Your task to perform on an android device: show emergency info Image 0: 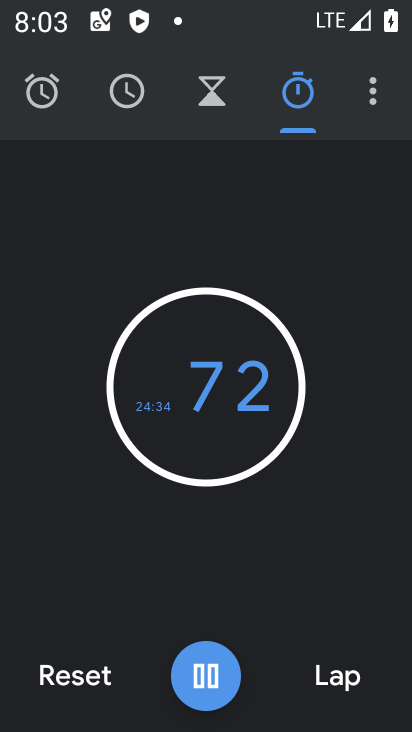
Step 0: press home button
Your task to perform on an android device: show emergency info Image 1: 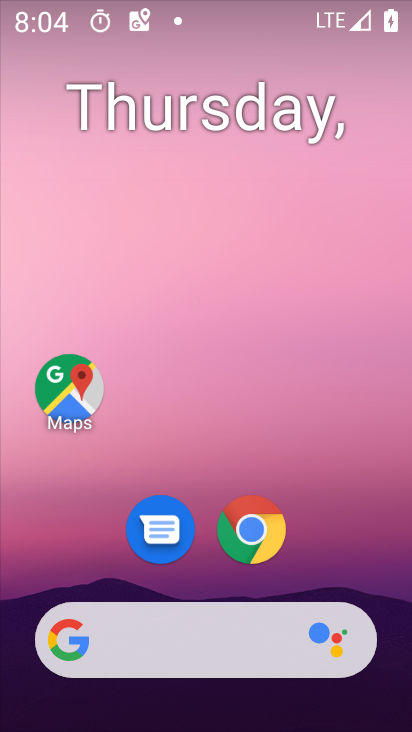
Step 1: drag from (356, 552) to (369, 169)
Your task to perform on an android device: show emergency info Image 2: 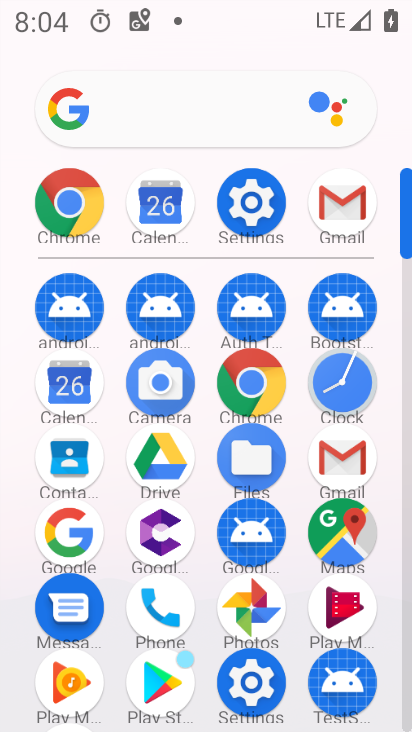
Step 2: click (260, 219)
Your task to perform on an android device: show emergency info Image 3: 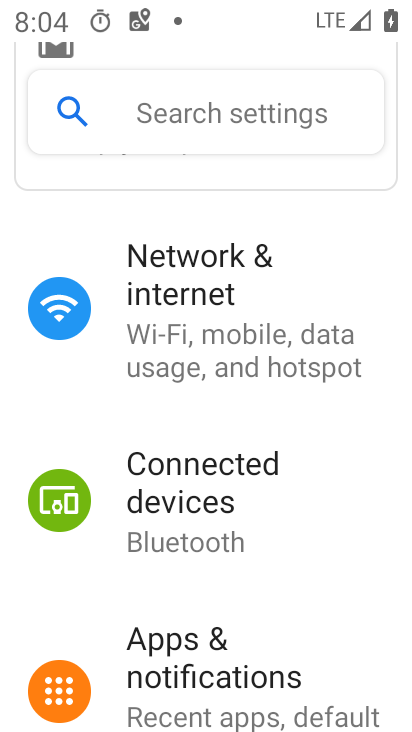
Step 3: drag from (339, 517) to (344, 353)
Your task to perform on an android device: show emergency info Image 4: 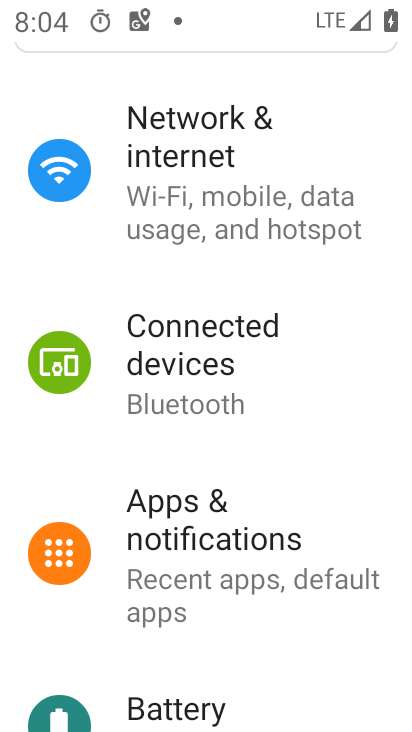
Step 4: drag from (345, 491) to (358, 321)
Your task to perform on an android device: show emergency info Image 5: 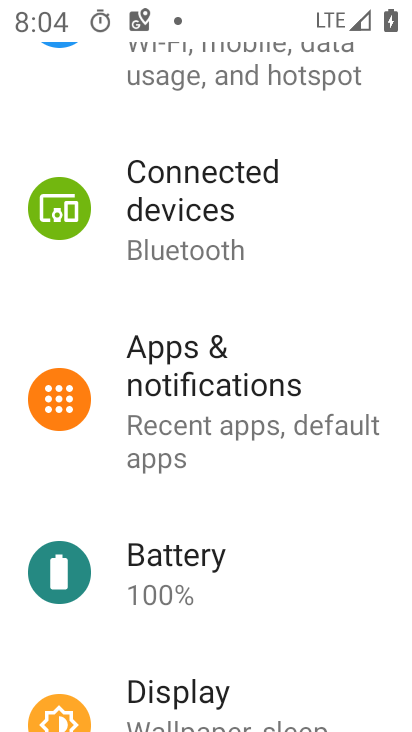
Step 5: drag from (346, 566) to (348, 390)
Your task to perform on an android device: show emergency info Image 6: 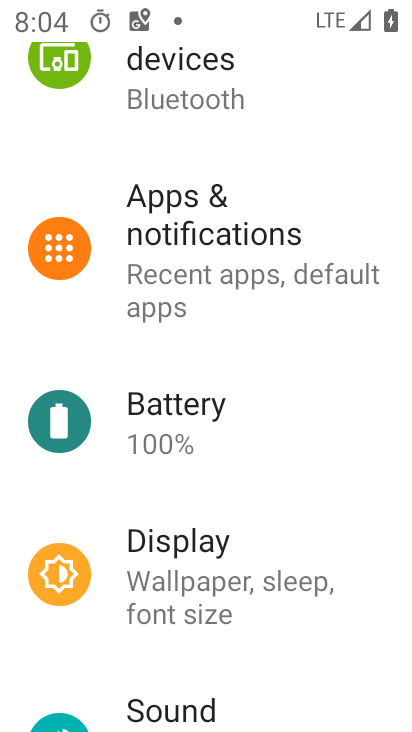
Step 6: drag from (339, 541) to (338, 407)
Your task to perform on an android device: show emergency info Image 7: 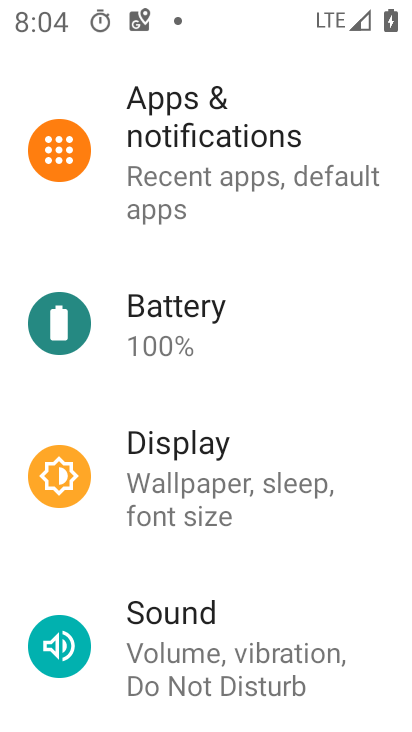
Step 7: drag from (345, 570) to (347, 456)
Your task to perform on an android device: show emergency info Image 8: 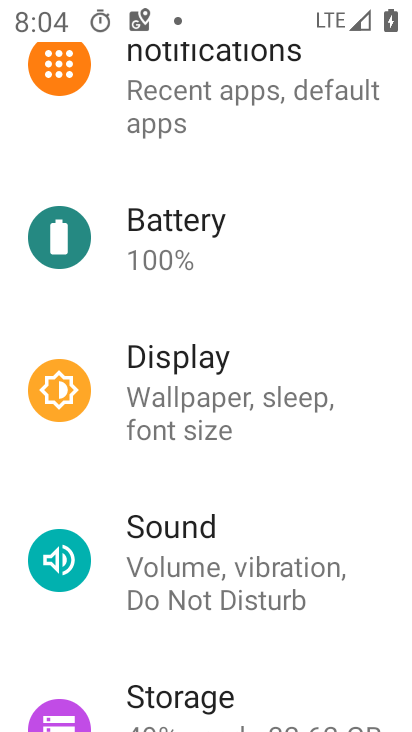
Step 8: drag from (359, 596) to (368, 489)
Your task to perform on an android device: show emergency info Image 9: 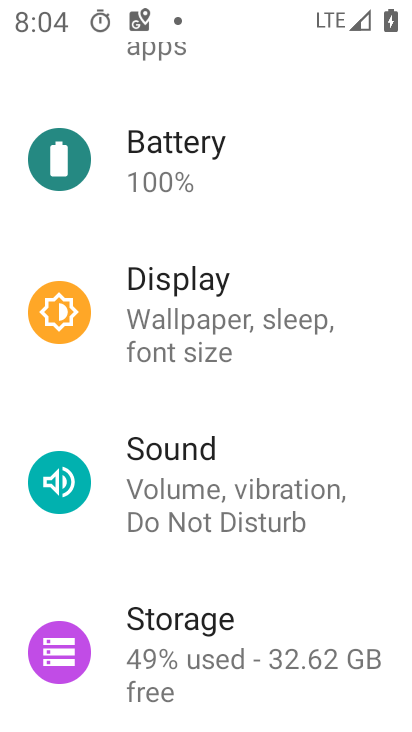
Step 9: drag from (367, 583) to (375, 481)
Your task to perform on an android device: show emergency info Image 10: 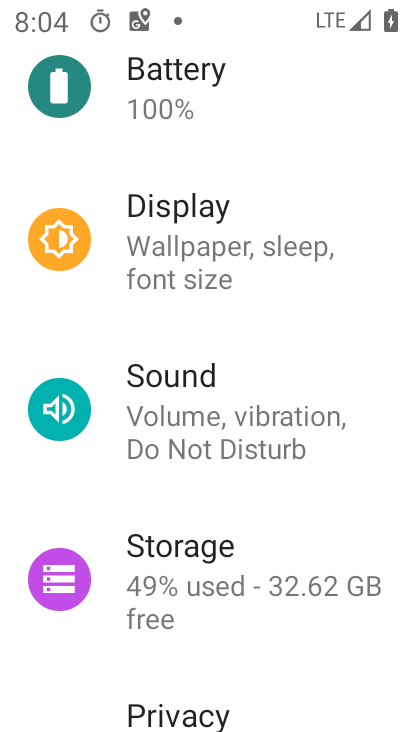
Step 10: drag from (358, 637) to (359, 499)
Your task to perform on an android device: show emergency info Image 11: 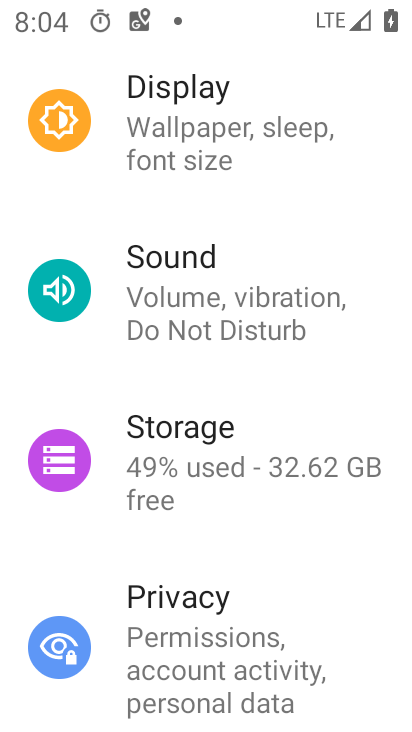
Step 11: drag from (359, 623) to (365, 526)
Your task to perform on an android device: show emergency info Image 12: 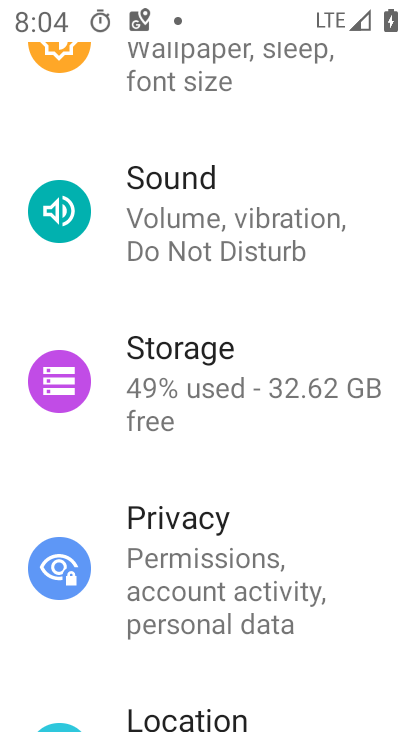
Step 12: drag from (349, 655) to (360, 549)
Your task to perform on an android device: show emergency info Image 13: 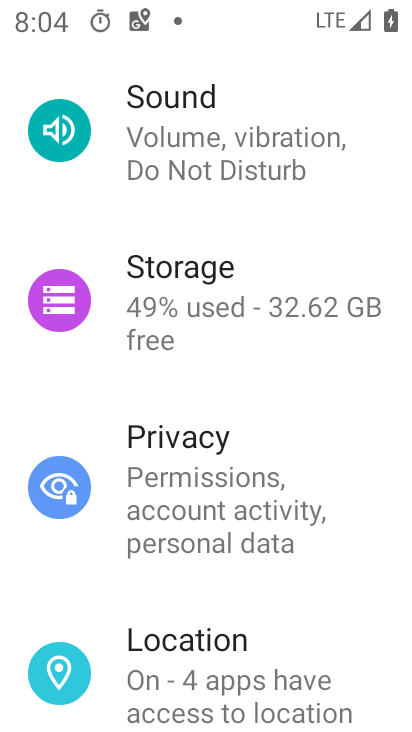
Step 13: drag from (353, 675) to (353, 555)
Your task to perform on an android device: show emergency info Image 14: 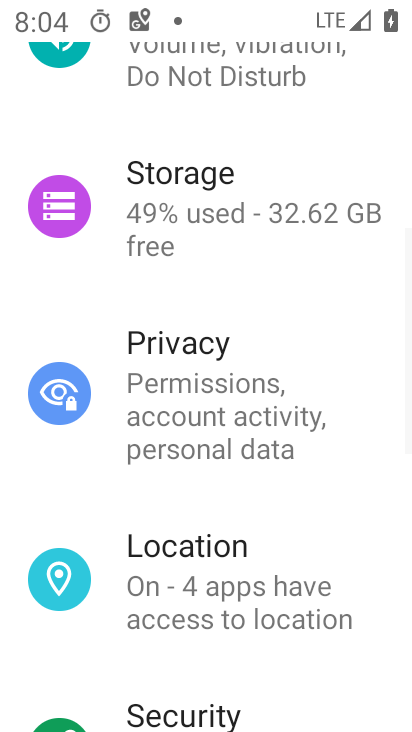
Step 14: drag from (371, 672) to (373, 579)
Your task to perform on an android device: show emergency info Image 15: 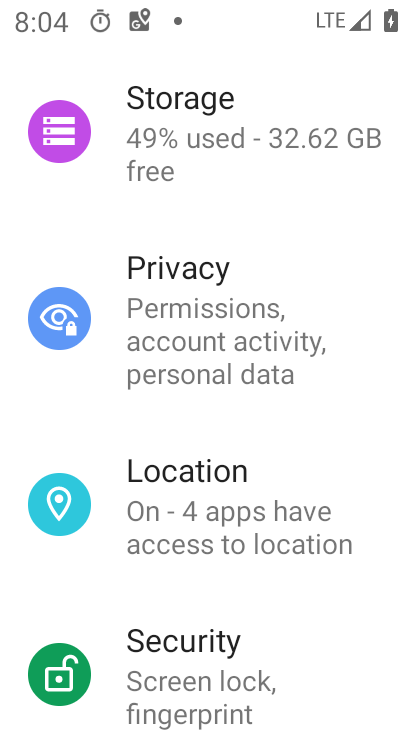
Step 15: drag from (361, 666) to (361, 580)
Your task to perform on an android device: show emergency info Image 16: 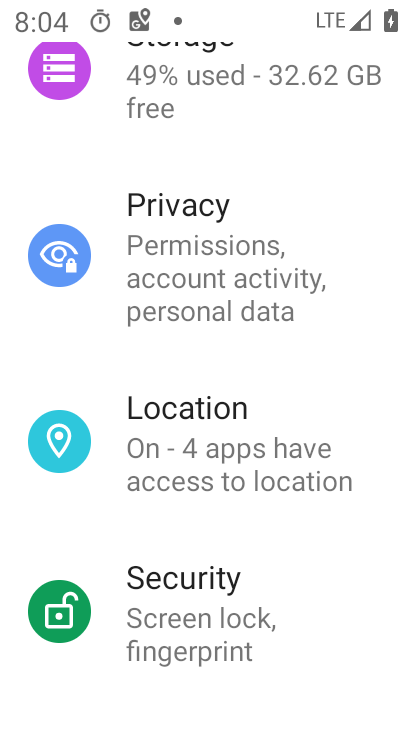
Step 16: drag from (366, 688) to (365, 600)
Your task to perform on an android device: show emergency info Image 17: 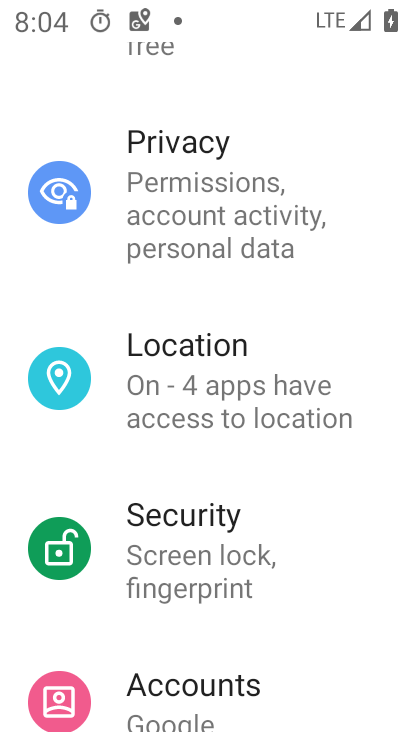
Step 17: drag from (369, 537) to (382, 457)
Your task to perform on an android device: show emergency info Image 18: 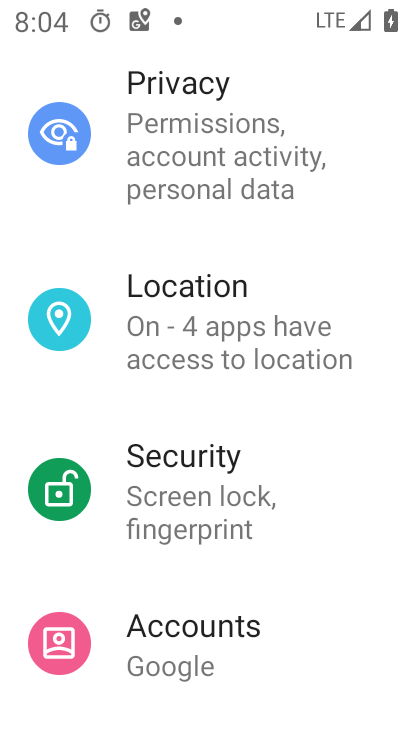
Step 18: drag from (385, 570) to (394, 444)
Your task to perform on an android device: show emergency info Image 19: 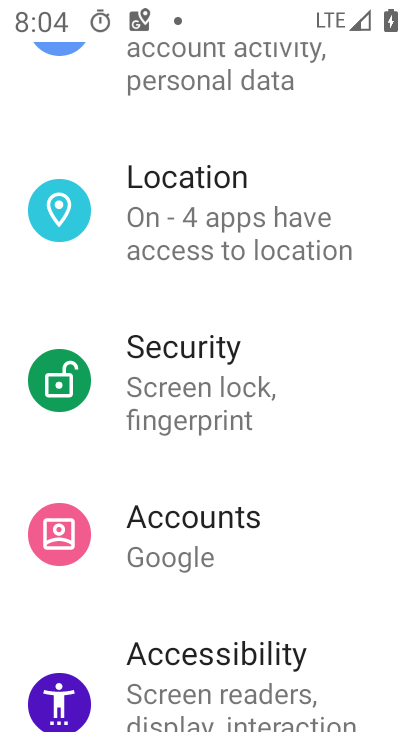
Step 19: drag from (370, 600) to (364, 498)
Your task to perform on an android device: show emergency info Image 20: 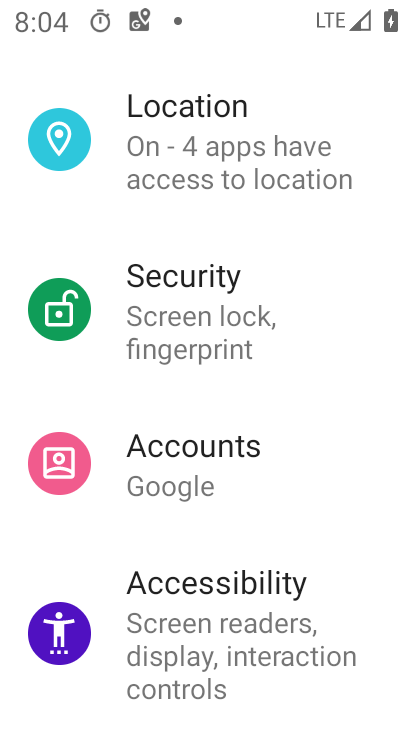
Step 20: drag from (362, 599) to (370, 497)
Your task to perform on an android device: show emergency info Image 21: 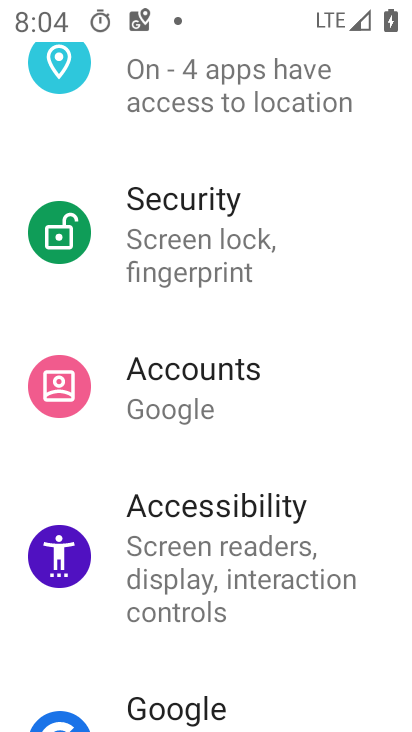
Step 21: drag from (368, 650) to (365, 515)
Your task to perform on an android device: show emergency info Image 22: 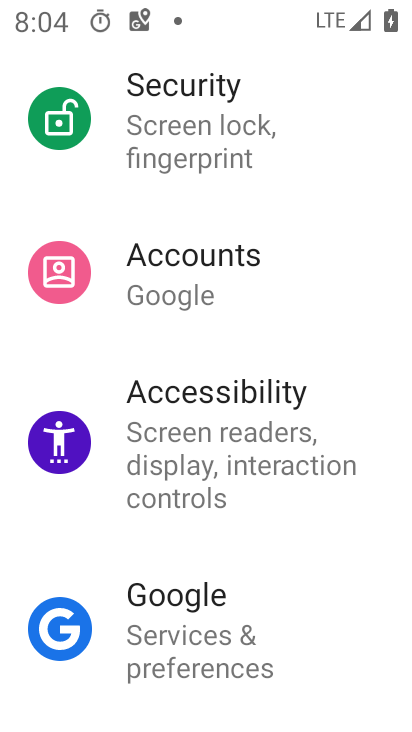
Step 22: drag from (365, 627) to (364, 511)
Your task to perform on an android device: show emergency info Image 23: 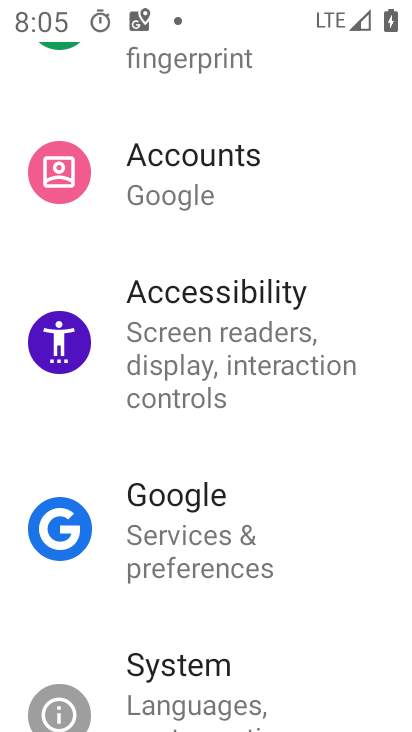
Step 23: drag from (358, 616) to (360, 523)
Your task to perform on an android device: show emergency info Image 24: 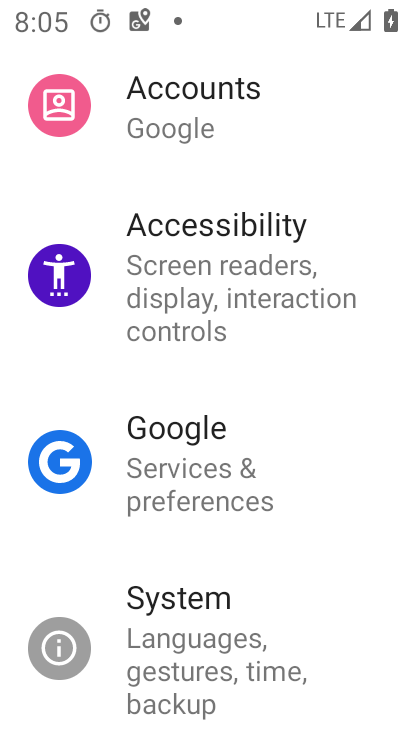
Step 24: drag from (353, 647) to (351, 540)
Your task to perform on an android device: show emergency info Image 25: 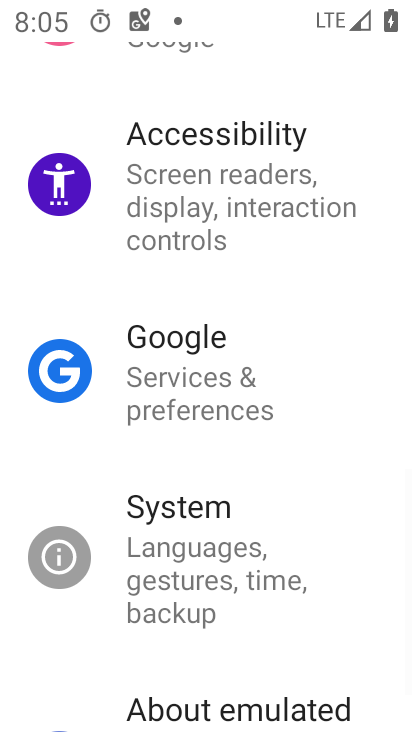
Step 25: drag from (349, 637) to (358, 424)
Your task to perform on an android device: show emergency info Image 26: 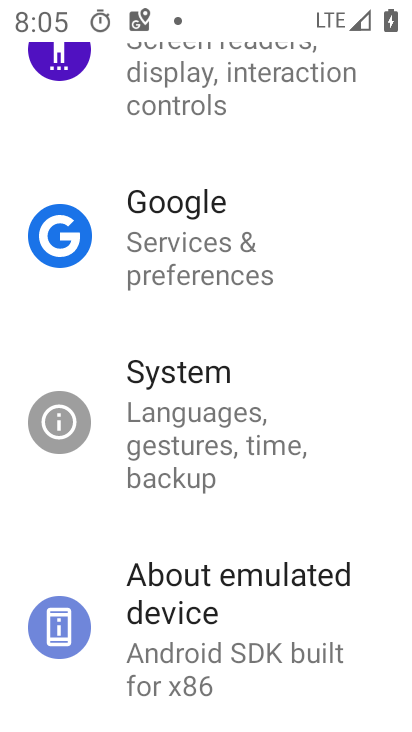
Step 26: click (290, 607)
Your task to perform on an android device: show emergency info Image 27: 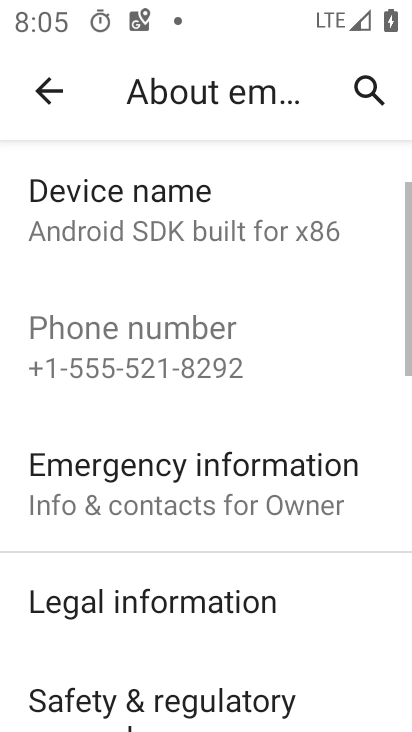
Step 27: click (229, 485)
Your task to perform on an android device: show emergency info Image 28: 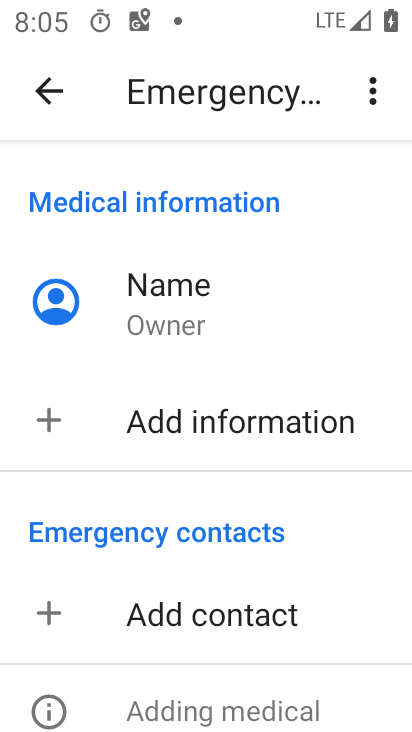
Step 28: task complete